Your task to perform on an android device: Open wifi settings Image 0: 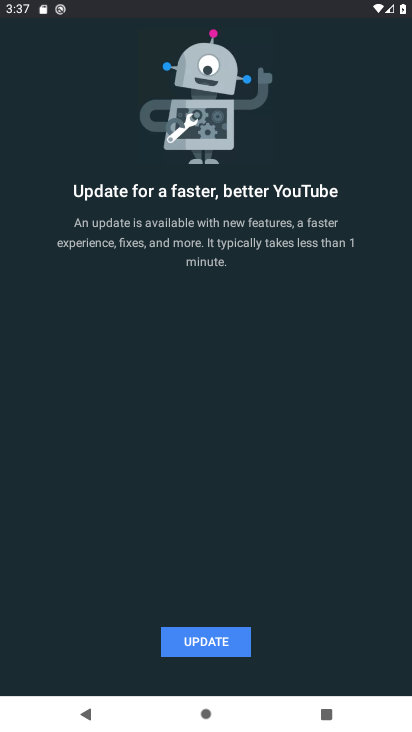
Step 0: press home button
Your task to perform on an android device: Open wifi settings Image 1: 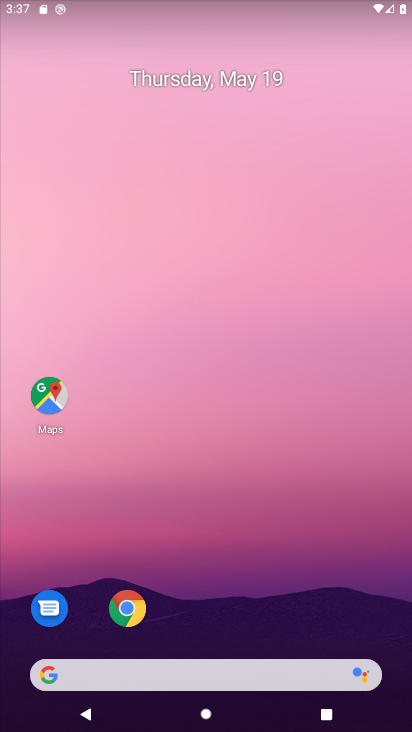
Step 1: drag from (168, 660) to (165, 236)
Your task to perform on an android device: Open wifi settings Image 2: 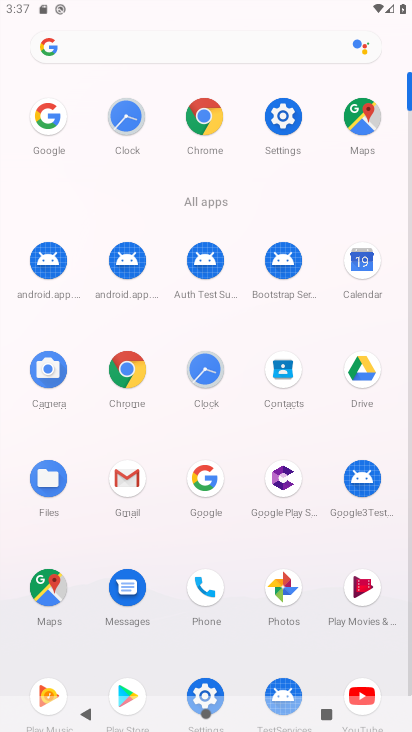
Step 2: click (282, 111)
Your task to perform on an android device: Open wifi settings Image 3: 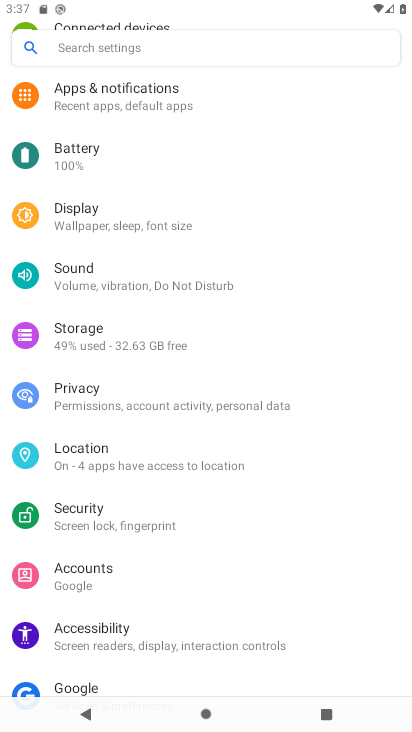
Step 3: drag from (141, 82) to (166, 449)
Your task to perform on an android device: Open wifi settings Image 4: 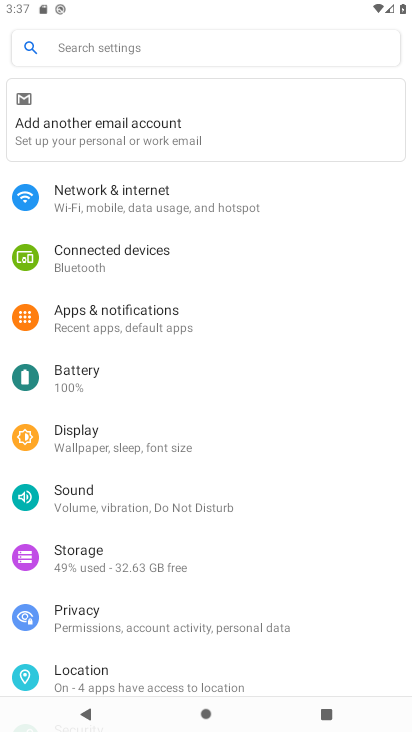
Step 4: click (94, 220)
Your task to perform on an android device: Open wifi settings Image 5: 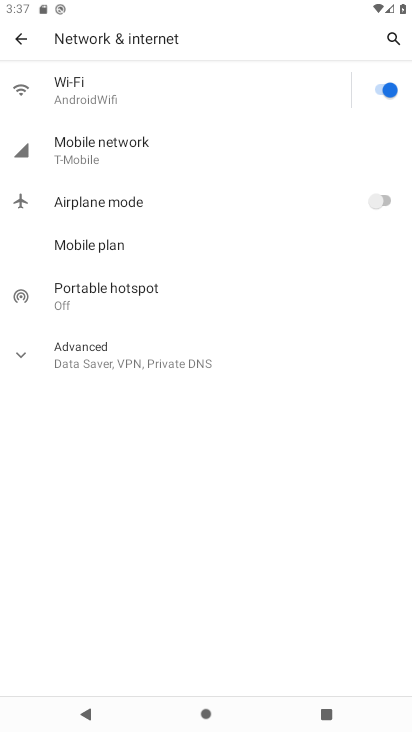
Step 5: click (76, 86)
Your task to perform on an android device: Open wifi settings Image 6: 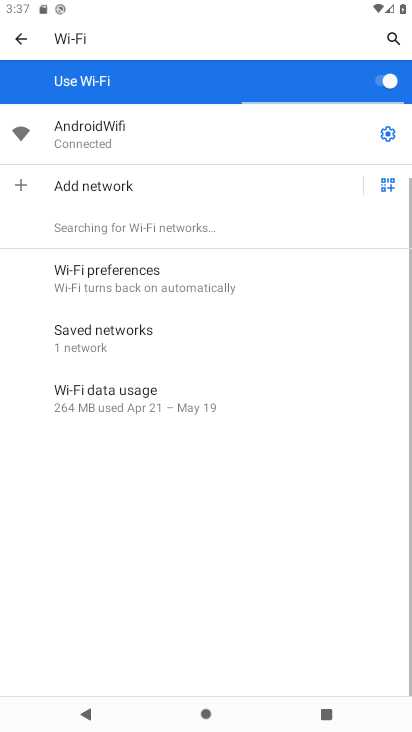
Step 6: click (387, 129)
Your task to perform on an android device: Open wifi settings Image 7: 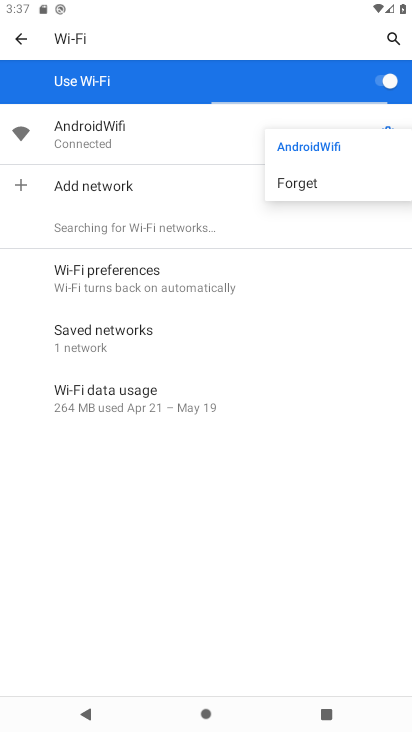
Step 7: click (92, 547)
Your task to perform on an android device: Open wifi settings Image 8: 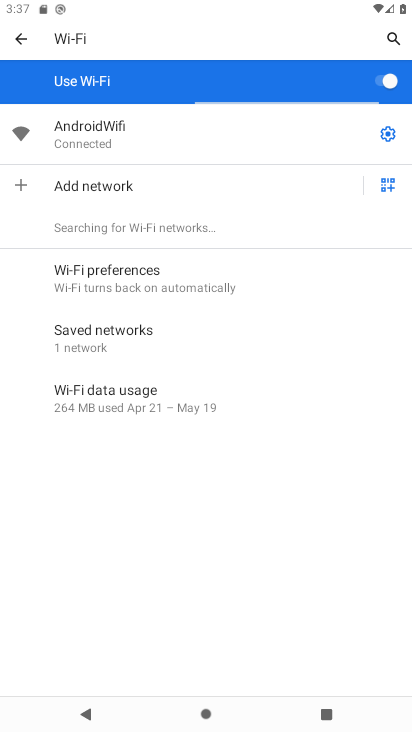
Step 8: click (382, 137)
Your task to perform on an android device: Open wifi settings Image 9: 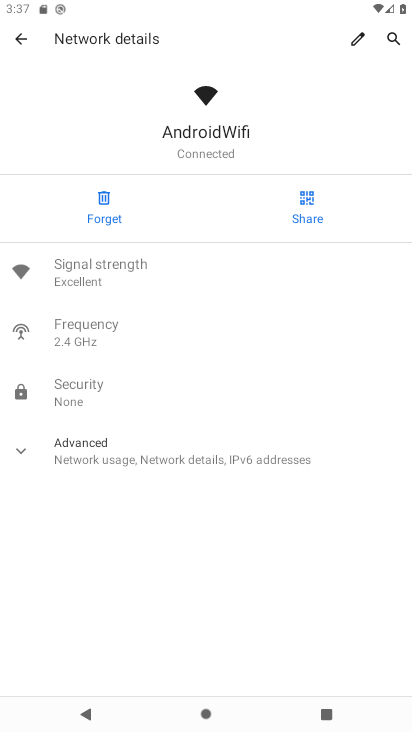
Step 9: click (78, 450)
Your task to perform on an android device: Open wifi settings Image 10: 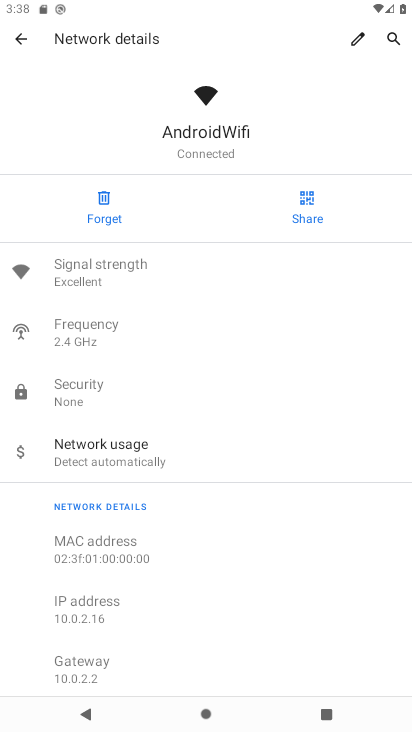
Step 10: task complete